Your task to perform on an android device: Go to Maps Image 0: 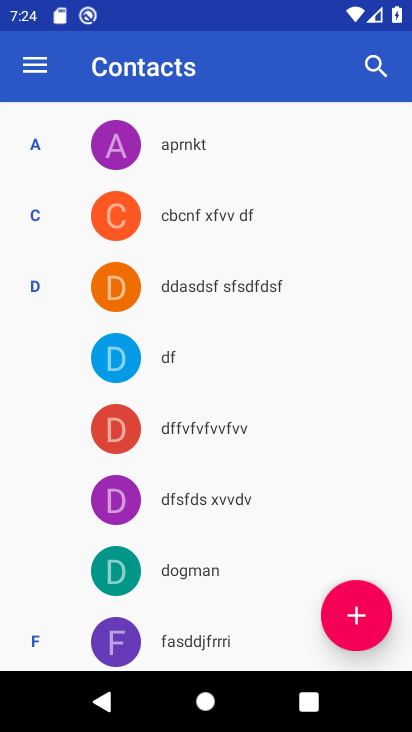
Step 0: press home button
Your task to perform on an android device: Go to Maps Image 1: 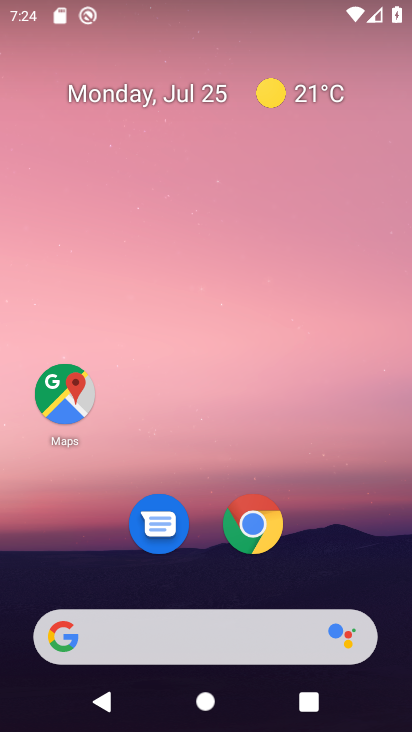
Step 1: click (57, 394)
Your task to perform on an android device: Go to Maps Image 2: 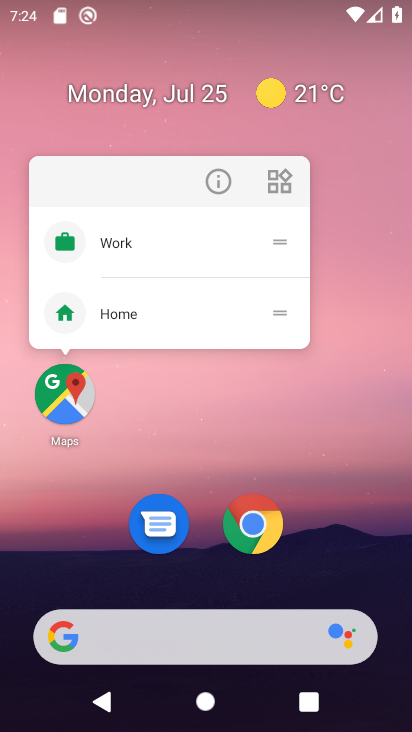
Step 2: click (71, 394)
Your task to perform on an android device: Go to Maps Image 3: 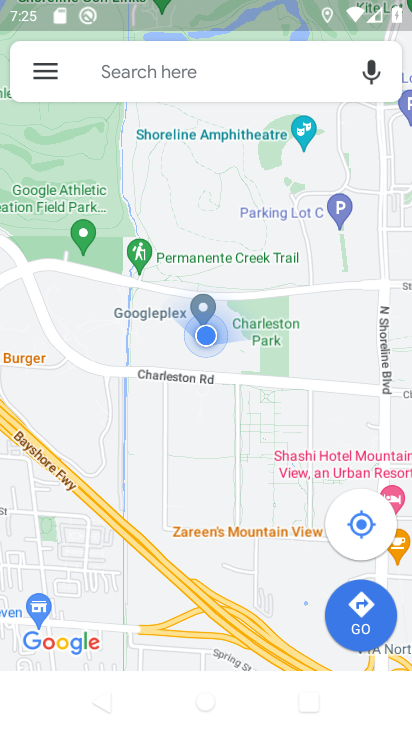
Step 3: task complete